Your task to perform on an android device: toggle pop-ups in chrome Image 0: 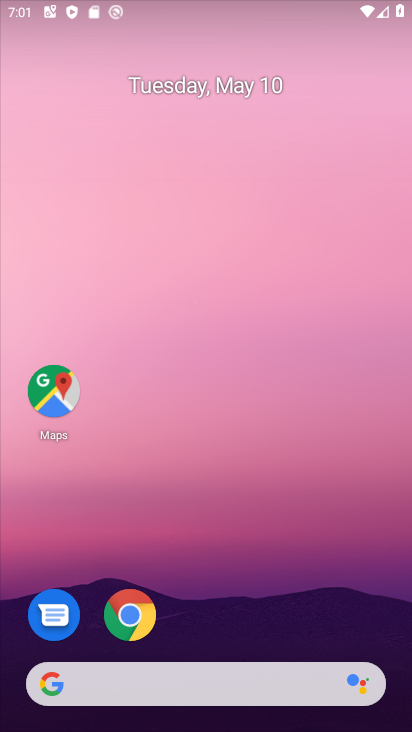
Step 0: drag from (264, 492) to (126, 86)
Your task to perform on an android device: toggle pop-ups in chrome Image 1: 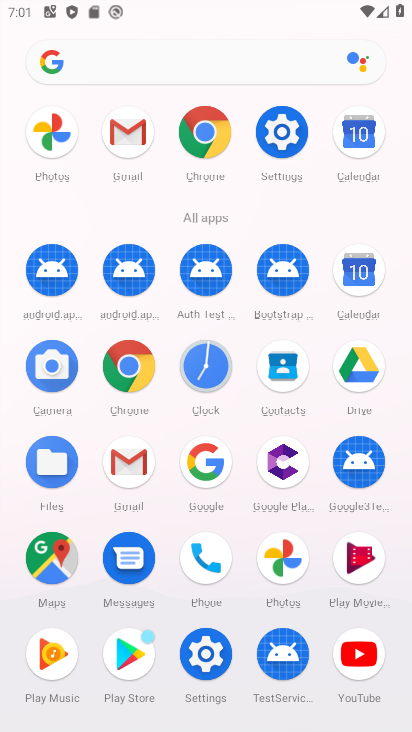
Step 1: click (212, 135)
Your task to perform on an android device: toggle pop-ups in chrome Image 2: 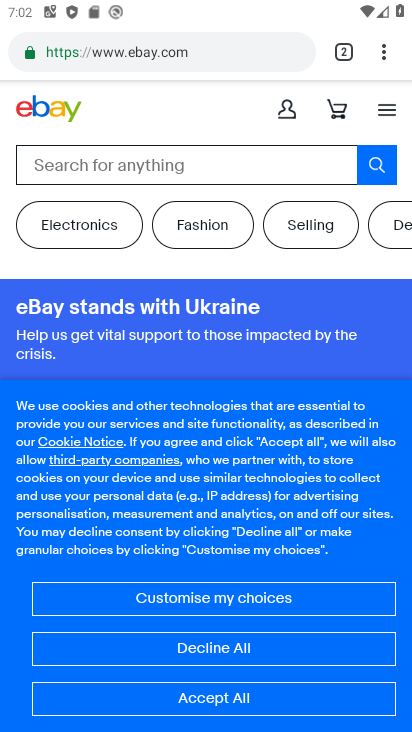
Step 2: click (382, 44)
Your task to perform on an android device: toggle pop-ups in chrome Image 3: 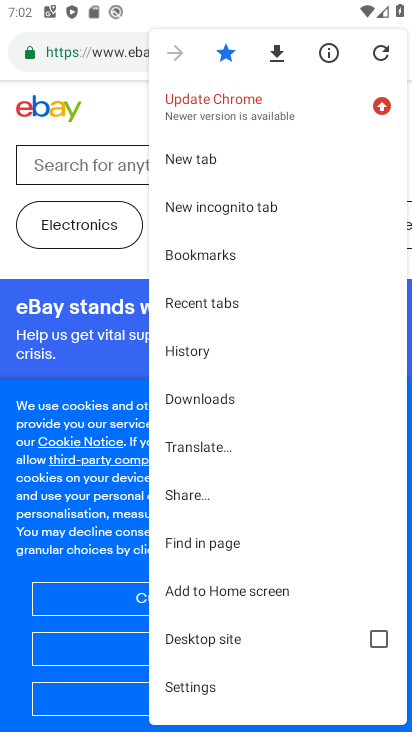
Step 3: click (197, 685)
Your task to perform on an android device: toggle pop-ups in chrome Image 4: 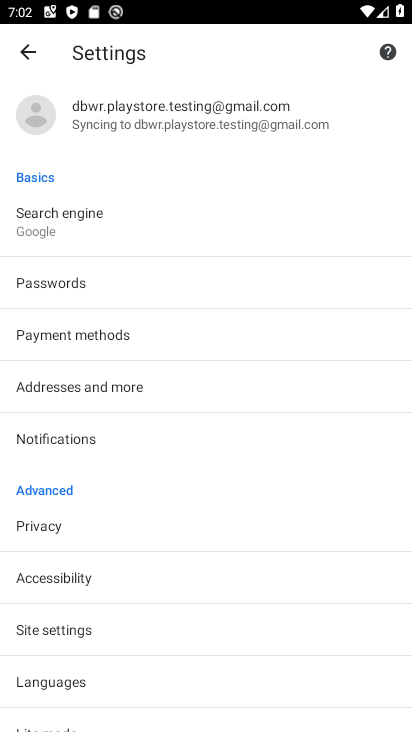
Step 4: click (62, 626)
Your task to perform on an android device: toggle pop-ups in chrome Image 5: 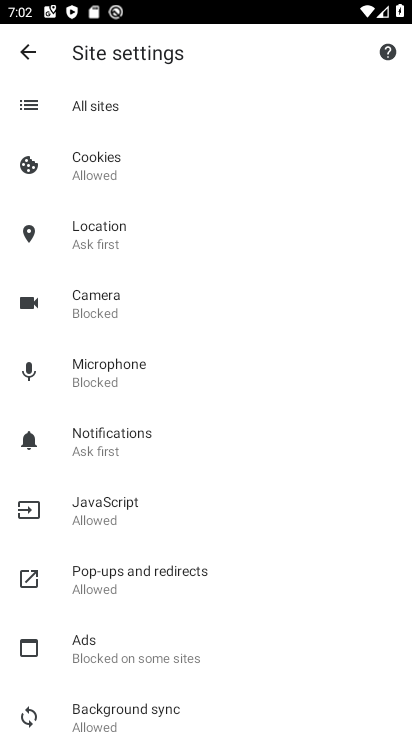
Step 5: click (129, 571)
Your task to perform on an android device: toggle pop-ups in chrome Image 6: 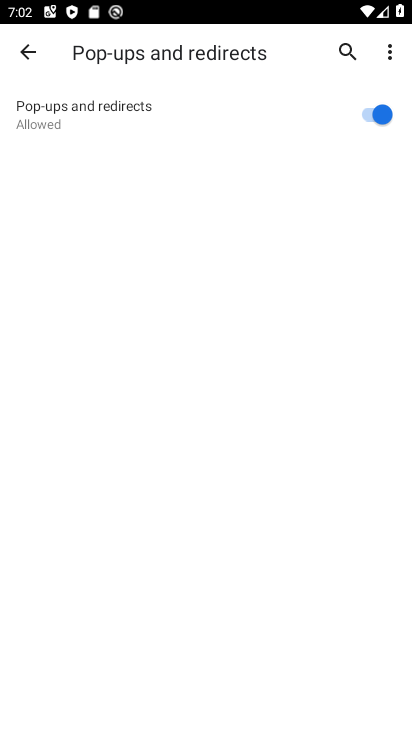
Step 6: click (381, 117)
Your task to perform on an android device: toggle pop-ups in chrome Image 7: 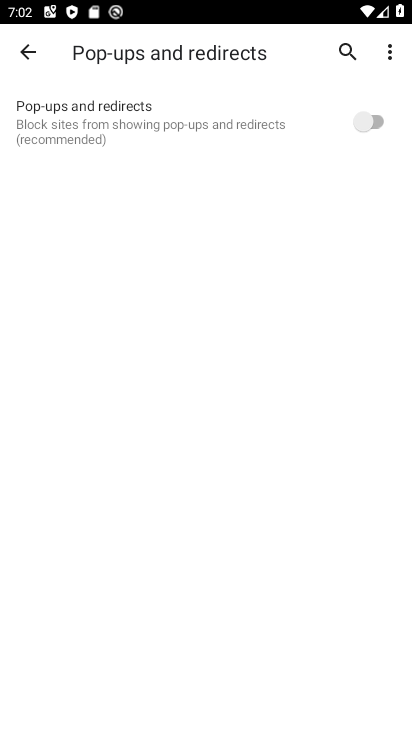
Step 7: task complete